Your task to perform on an android device: What time is it in Moscow? Image 0: 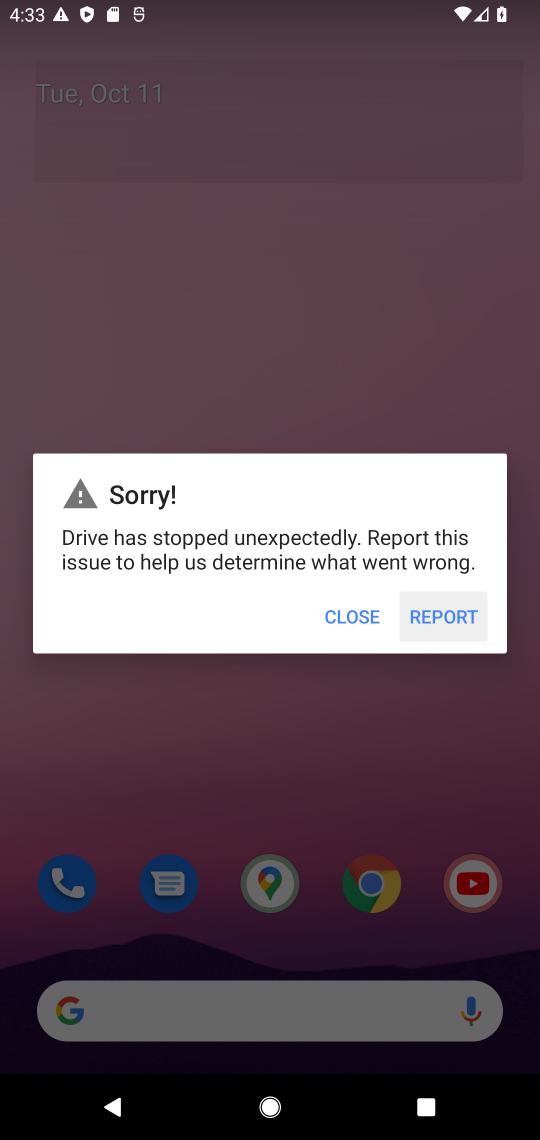
Step 0: press home button
Your task to perform on an android device: What time is it in Moscow? Image 1: 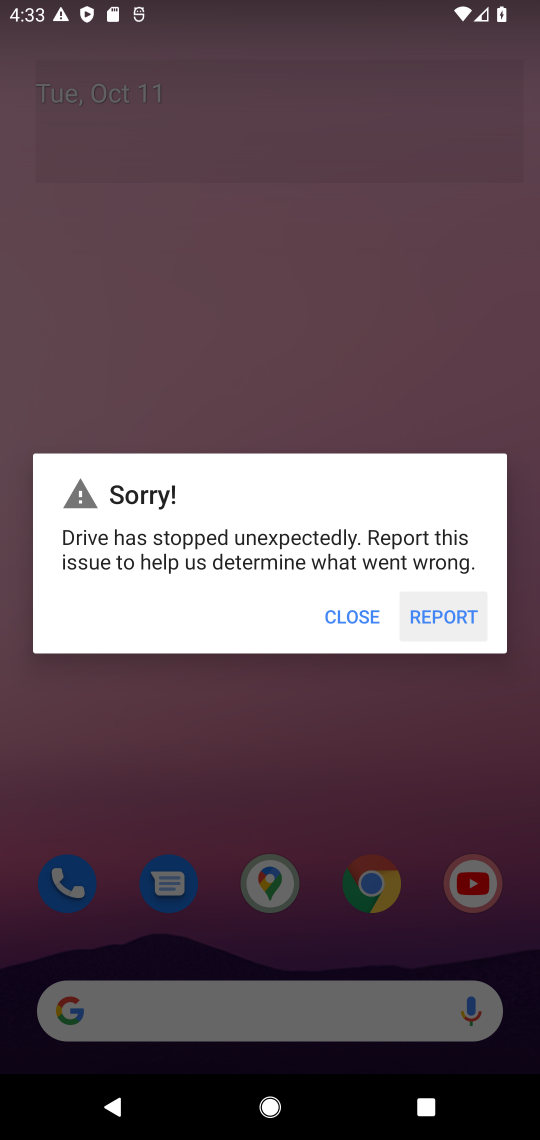
Step 1: press home button
Your task to perform on an android device: What time is it in Moscow? Image 2: 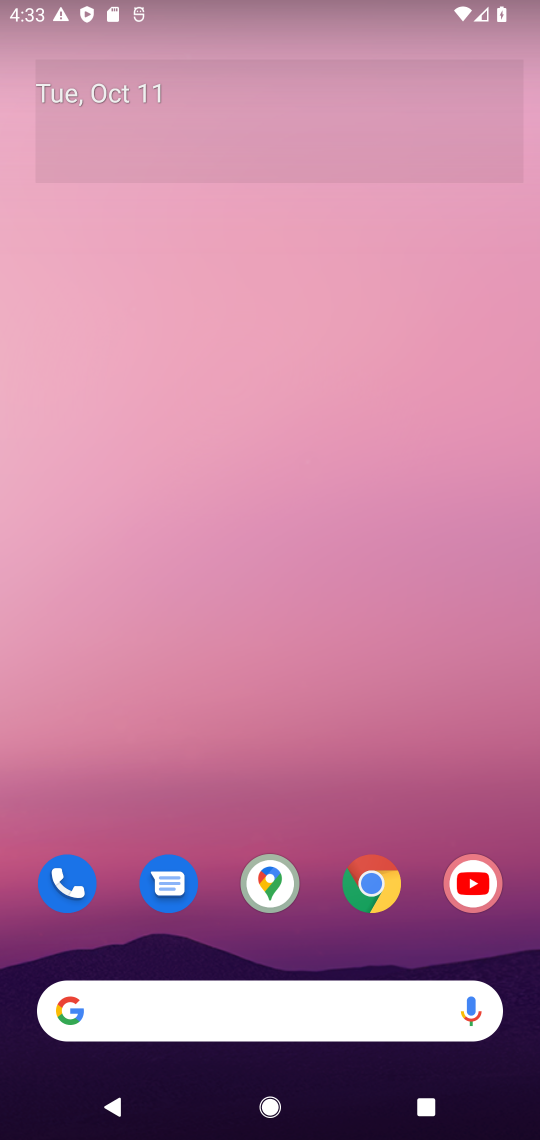
Step 2: drag from (322, 946) to (312, 98)
Your task to perform on an android device: What time is it in Moscow? Image 3: 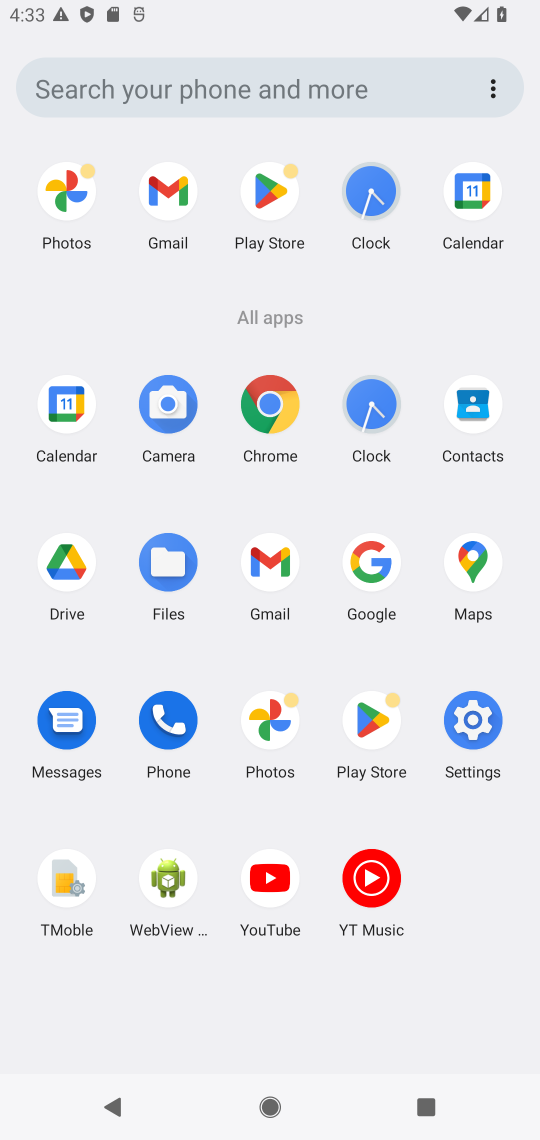
Step 3: click (265, 407)
Your task to perform on an android device: What time is it in Moscow? Image 4: 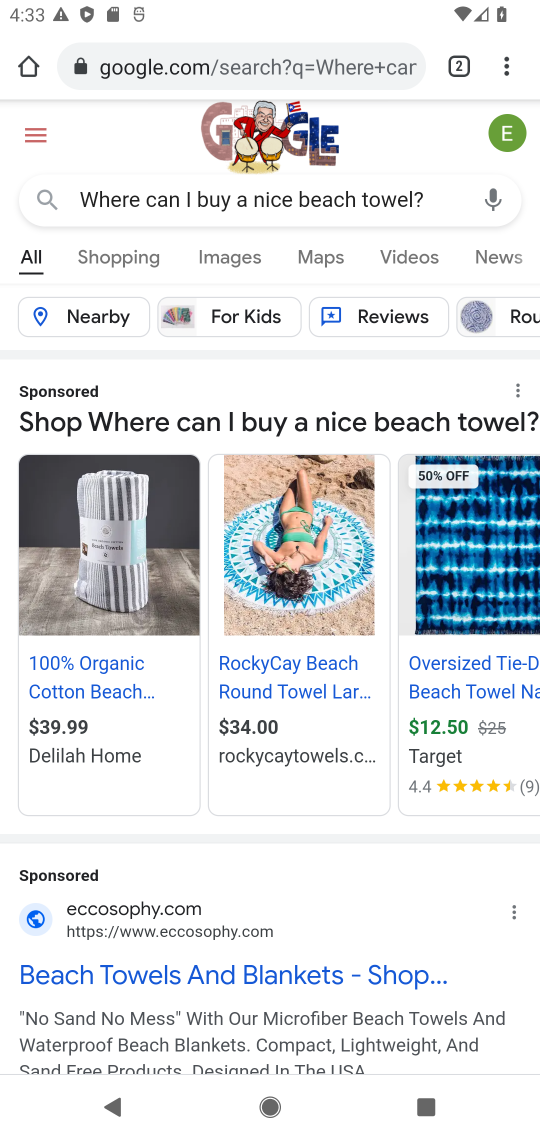
Step 4: click (249, 194)
Your task to perform on an android device: What time is it in Moscow? Image 5: 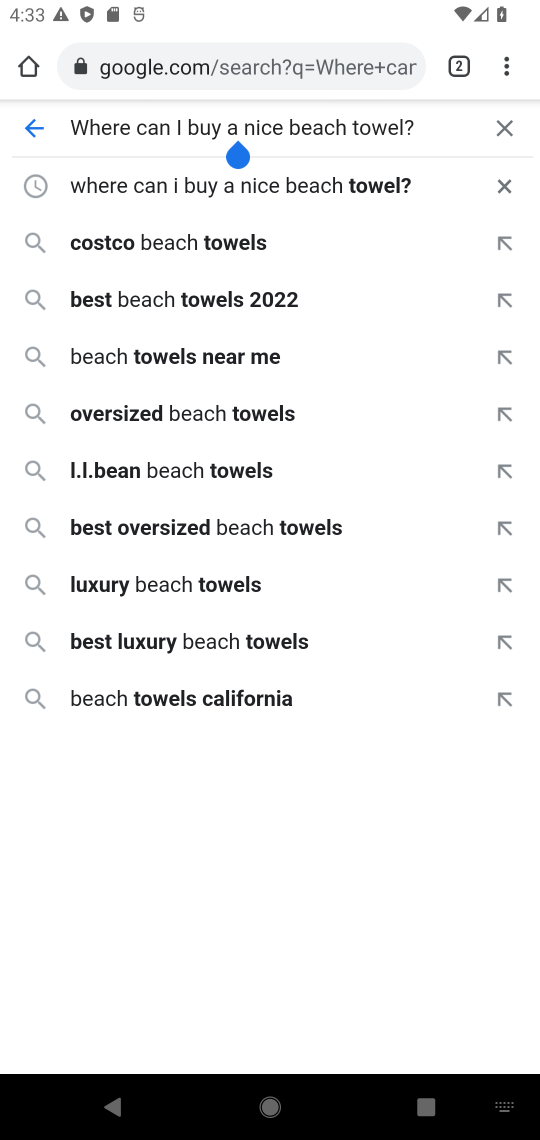
Step 5: click (504, 127)
Your task to perform on an android device: What time is it in Moscow? Image 6: 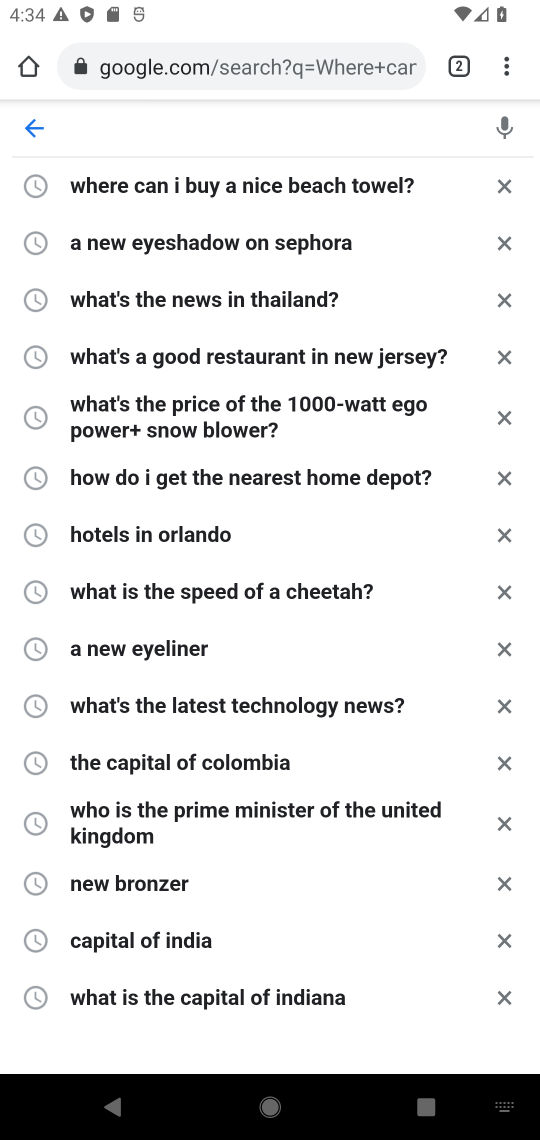
Step 6: type "What time is it in Moscow?"
Your task to perform on an android device: What time is it in Moscow? Image 7: 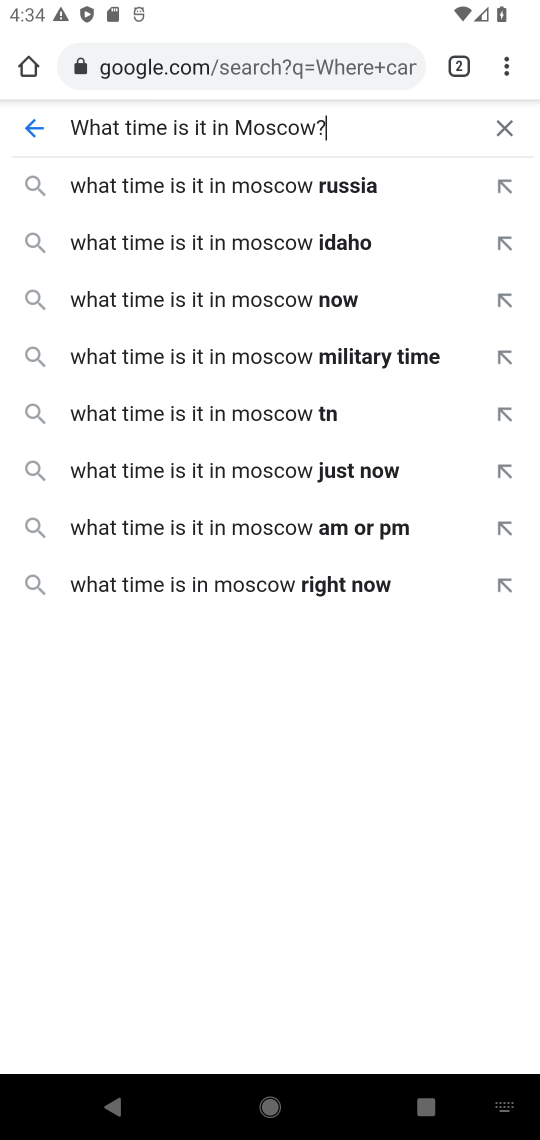
Step 7: press enter
Your task to perform on an android device: What time is it in Moscow? Image 8: 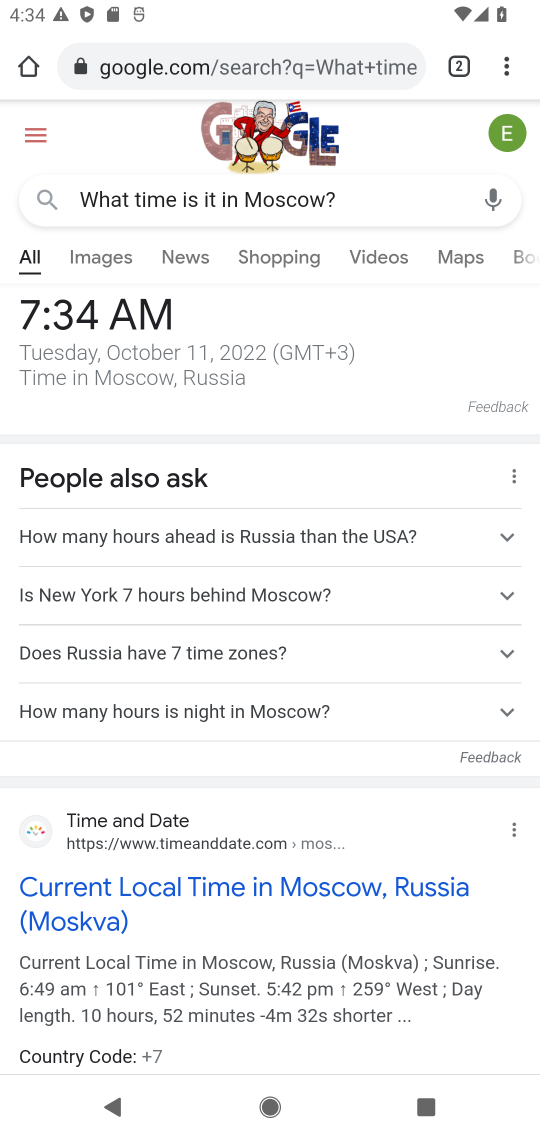
Step 8: task complete